Your task to perform on an android device: Open Chrome and go to settings Image 0: 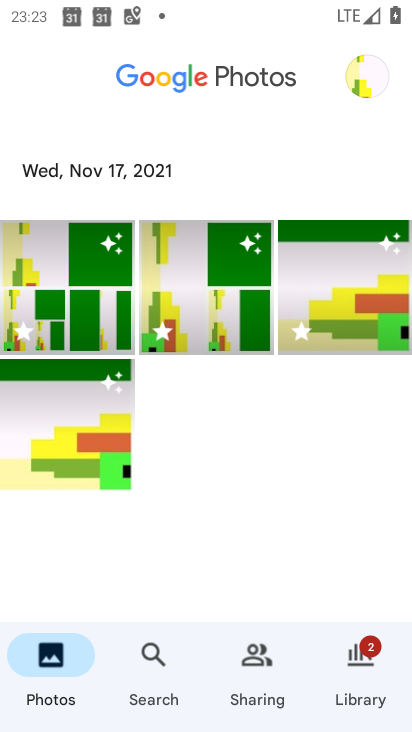
Step 0: press home button
Your task to perform on an android device: Open Chrome and go to settings Image 1: 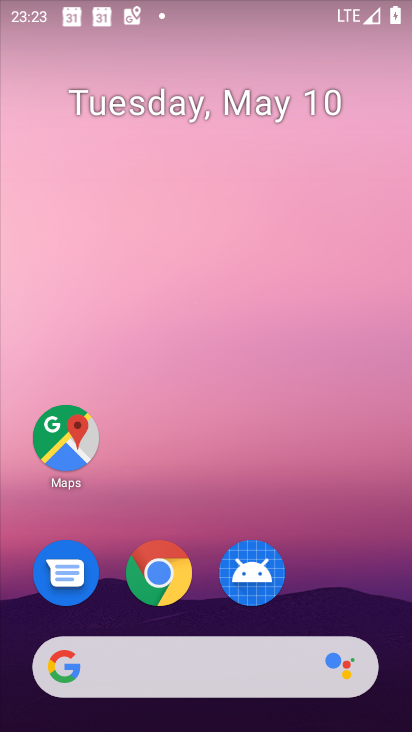
Step 1: click (165, 570)
Your task to perform on an android device: Open Chrome and go to settings Image 2: 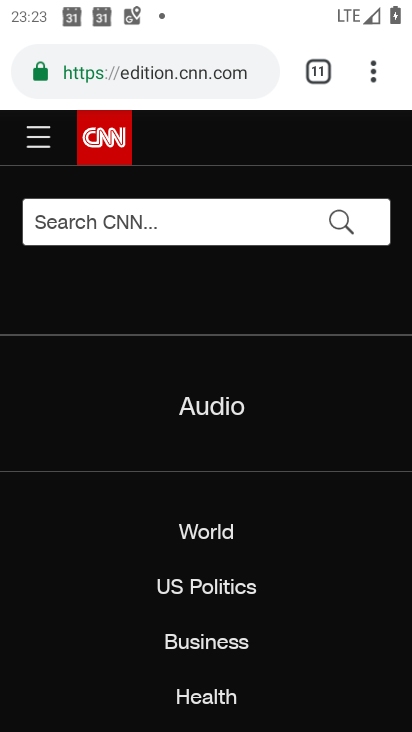
Step 2: click (371, 72)
Your task to perform on an android device: Open Chrome and go to settings Image 3: 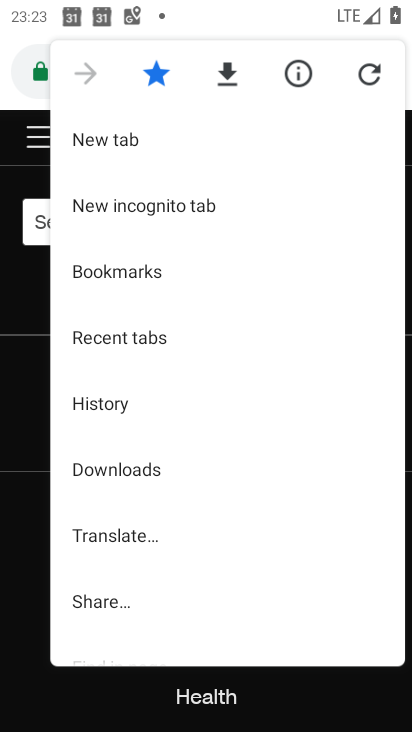
Step 3: drag from (192, 539) to (178, 215)
Your task to perform on an android device: Open Chrome and go to settings Image 4: 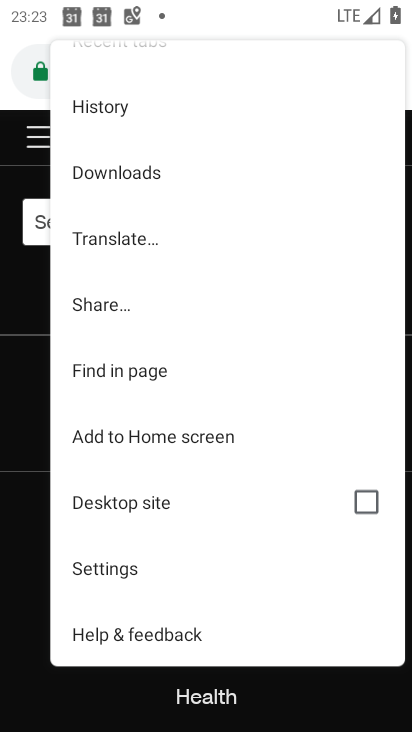
Step 4: click (107, 570)
Your task to perform on an android device: Open Chrome and go to settings Image 5: 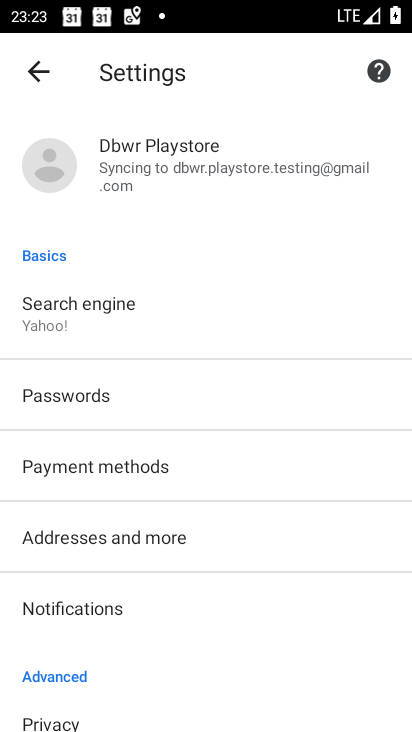
Step 5: task complete